Your task to perform on an android device: turn vacation reply on in the gmail app Image 0: 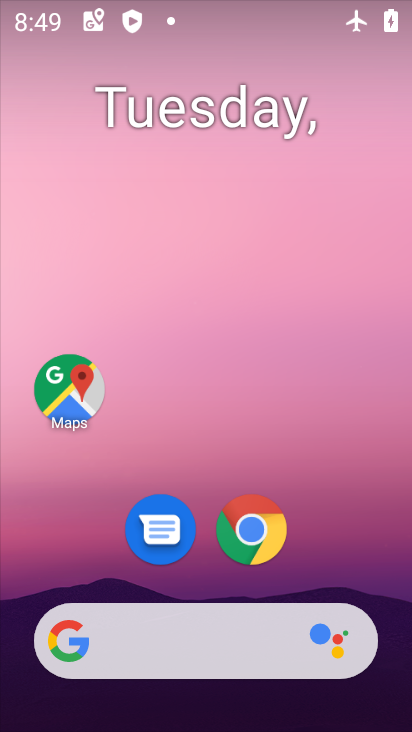
Step 0: drag from (231, 629) to (244, 231)
Your task to perform on an android device: turn vacation reply on in the gmail app Image 1: 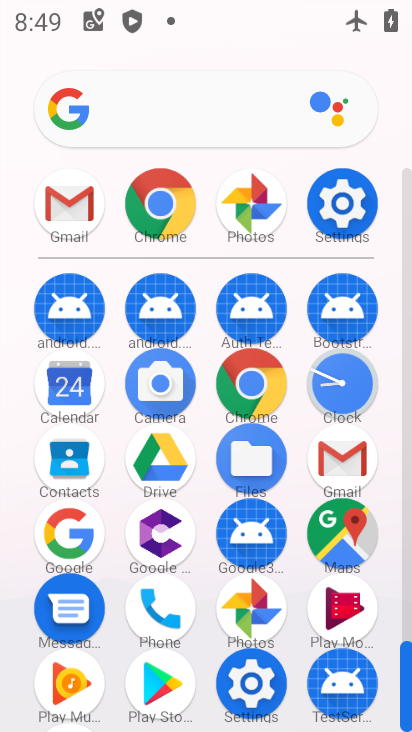
Step 1: click (353, 465)
Your task to perform on an android device: turn vacation reply on in the gmail app Image 2: 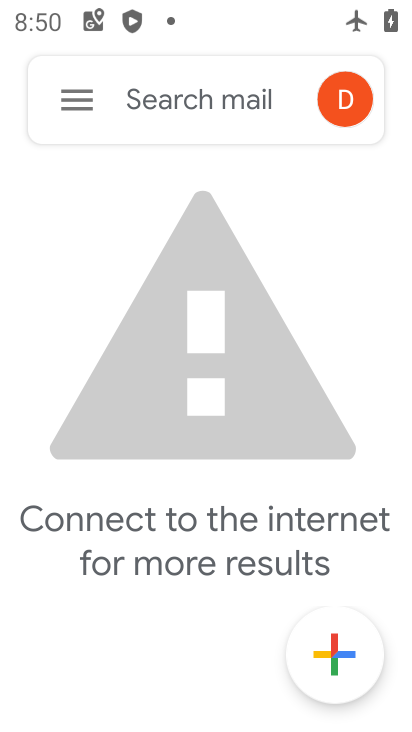
Step 2: click (89, 120)
Your task to perform on an android device: turn vacation reply on in the gmail app Image 3: 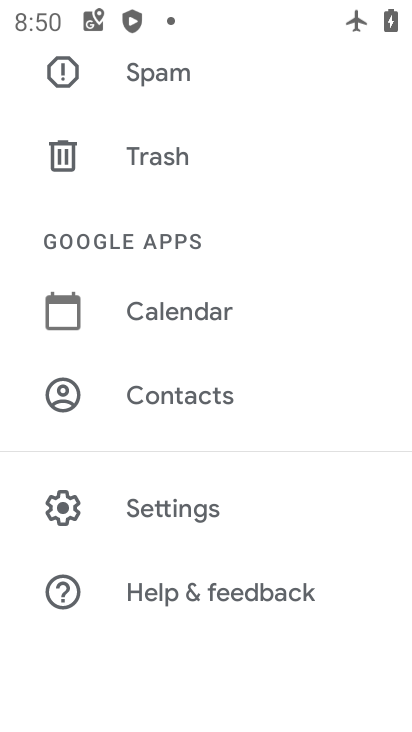
Step 3: click (179, 514)
Your task to perform on an android device: turn vacation reply on in the gmail app Image 4: 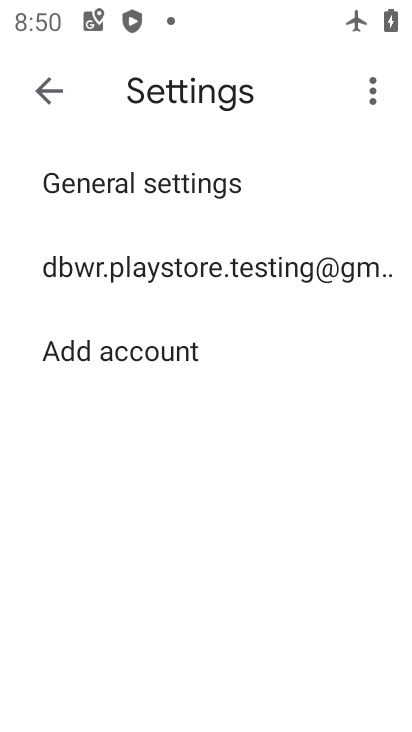
Step 4: click (193, 257)
Your task to perform on an android device: turn vacation reply on in the gmail app Image 5: 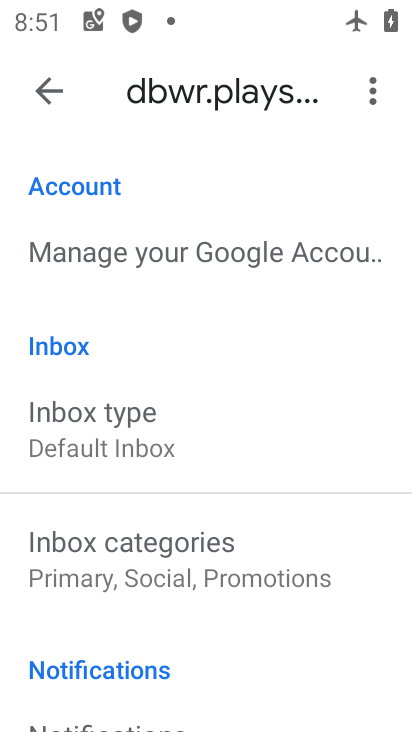
Step 5: drag from (144, 557) to (343, 26)
Your task to perform on an android device: turn vacation reply on in the gmail app Image 6: 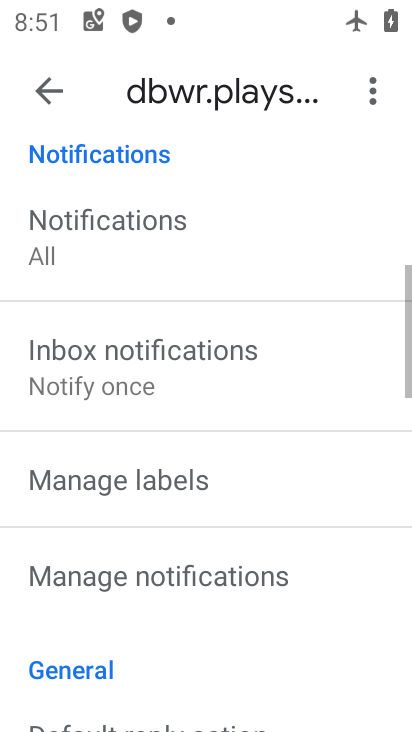
Step 6: drag from (118, 621) to (158, 3)
Your task to perform on an android device: turn vacation reply on in the gmail app Image 7: 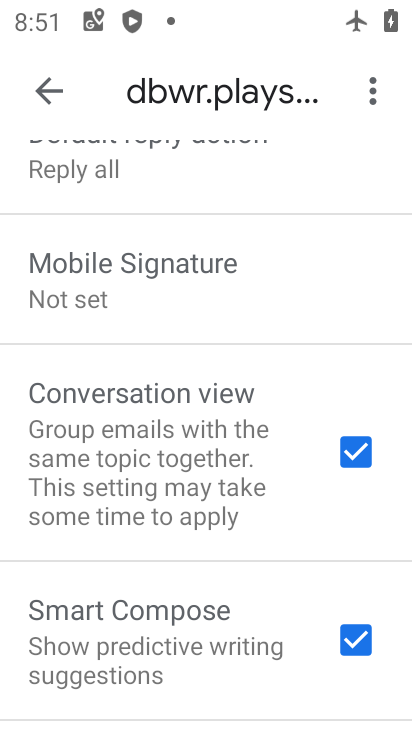
Step 7: drag from (185, 645) to (232, 138)
Your task to perform on an android device: turn vacation reply on in the gmail app Image 8: 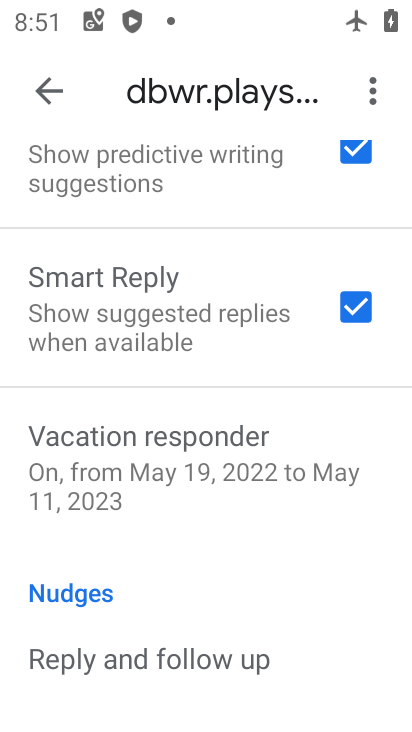
Step 8: click (180, 480)
Your task to perform on an android device: turn vacation reply on in the gmail app Image 9: 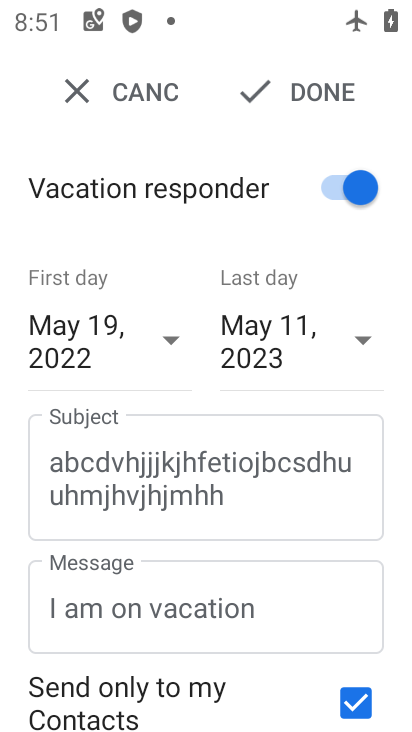
Step 9: task complete